Your task to perform on an android device: Turn on the flashlight Image 0: 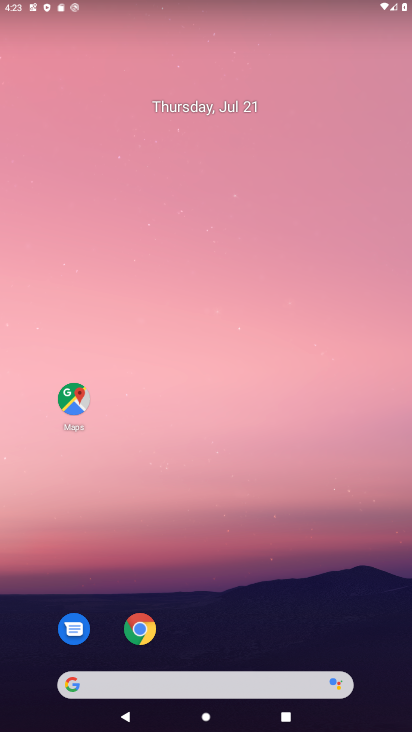
Step 0: drag from (231, 281) to (2, 225)
Your task to perform on an android device: Turn on the flashlight Image 1: 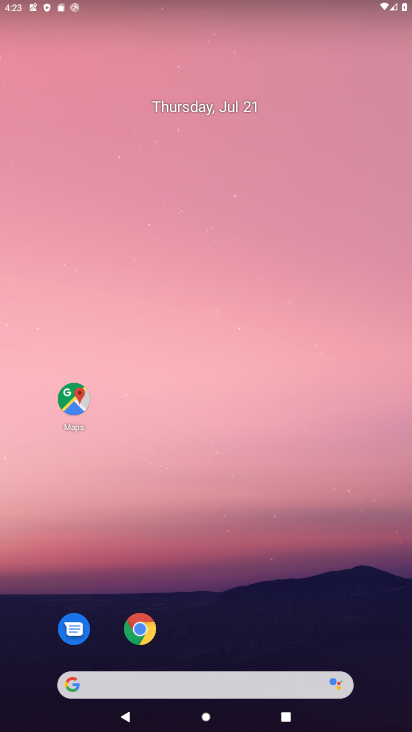
Step 1: drag from (282, 602) to (223, 138)
Your task to perform on an android device: Turn on the flashlight Image 2: 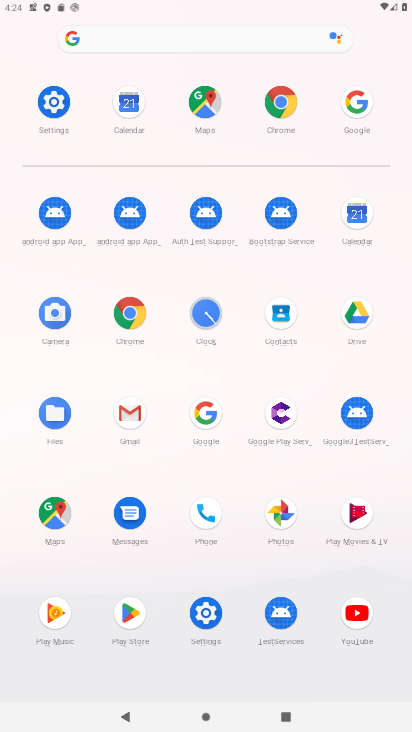
Step 2: click (66, 110)
Your task to perform on an android device: Turn on the flashlight Image 3: 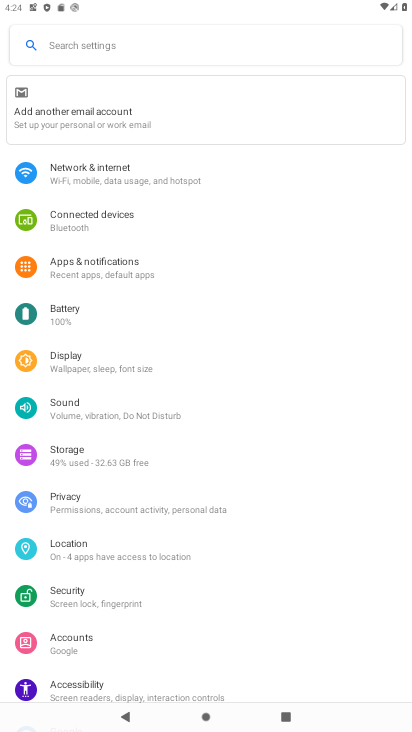
Step 3: task complete